Your task to perform on an android device: Show me recent news Image 0: 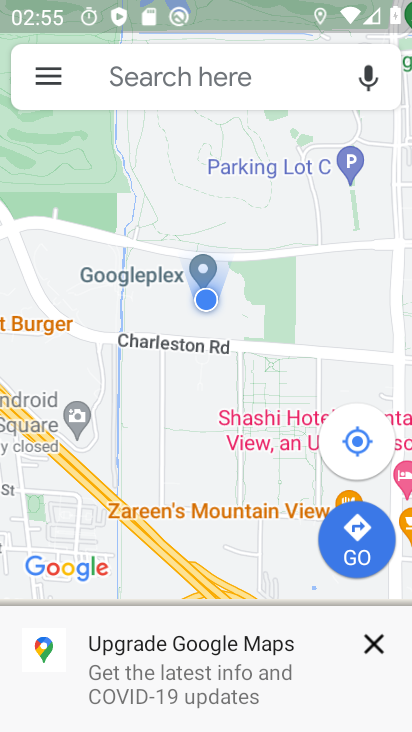
Step 0: press home button
Your task to perform on an android device: Show me recent news Image 1: 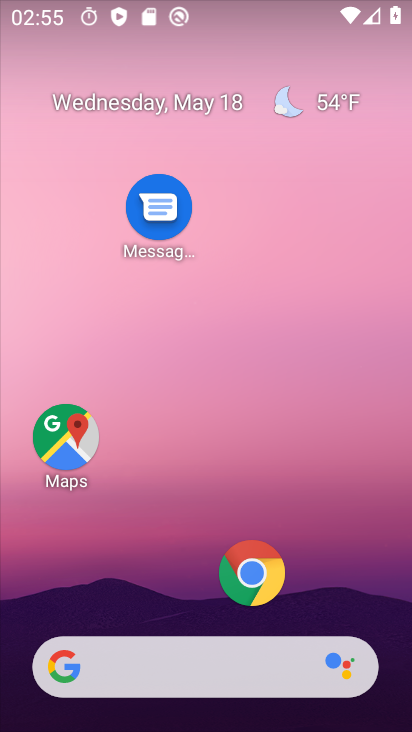
Step 1: drag from (182, 612) to (239, 197)
Your task to perform on an android device: Show me recent news Image 2: 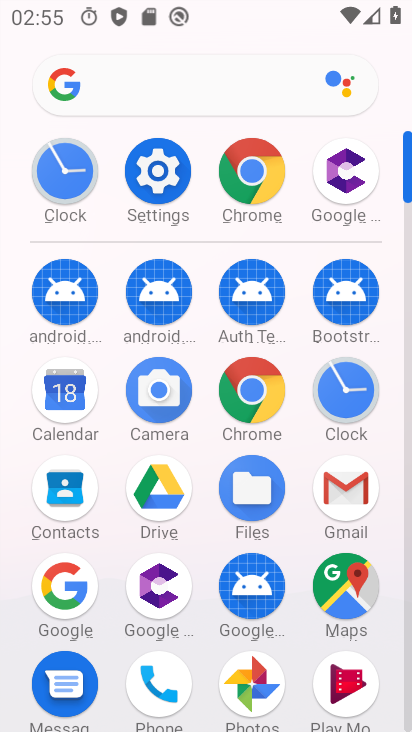
Step 2: click (57, 581)
Your task to perform on an android device: Show me recent news Image 3: 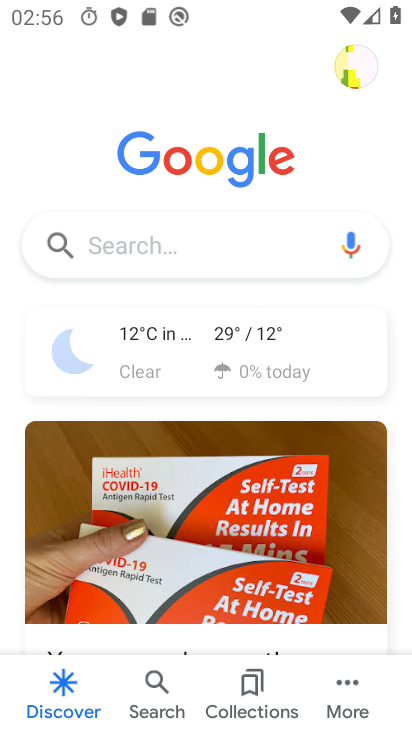
Step 3: click (153, 239)
Your task to perform on an android device: Show me recent news Image 4: 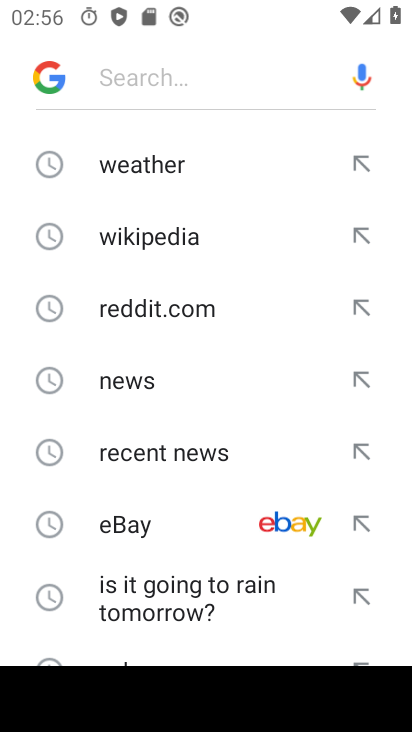
Step 4: type "recent news"
Your task to perform on an android device: Show me recent news Image 5: 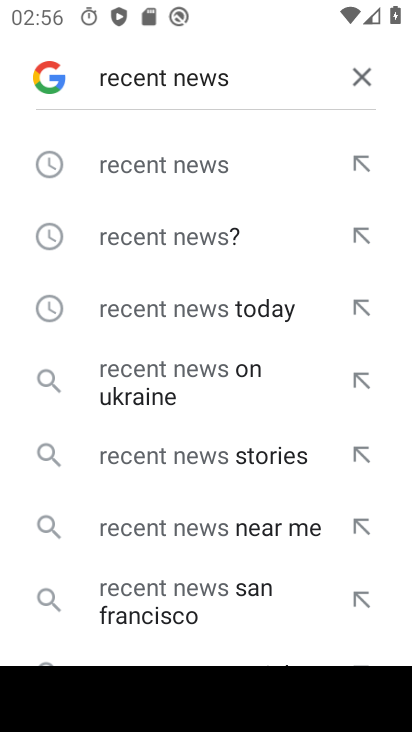
Step 5: click (218, 170)
Your task to perform on an android device: Show me recent news Image 6: 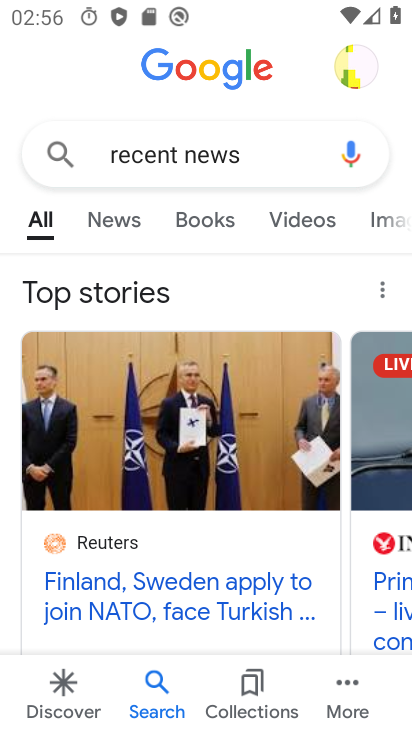
Step 6: click (112, 221)
Your task to perform on an android device: Show me recent news Image 7: 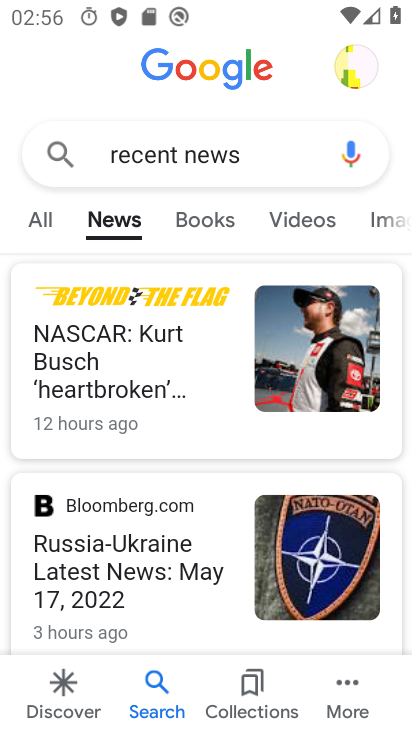
Step 7: task complete